Your task to perform on an android device: read, delete, or share a saved page in the chrome app Image 0: 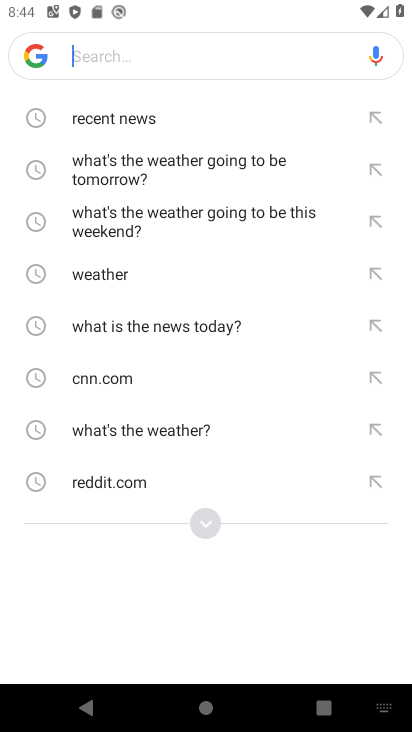
Step 0: press home button
Your task to perform on an android device: read, delete, or share a saved page in the chrome app Image 1: 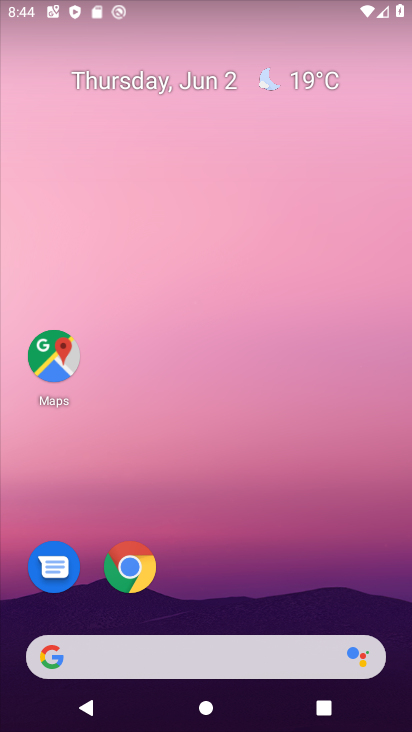
Step 1: click (187, 568)
Your task to perform on an android device: read, delete, or share a saved page in the chrome app Image 2: 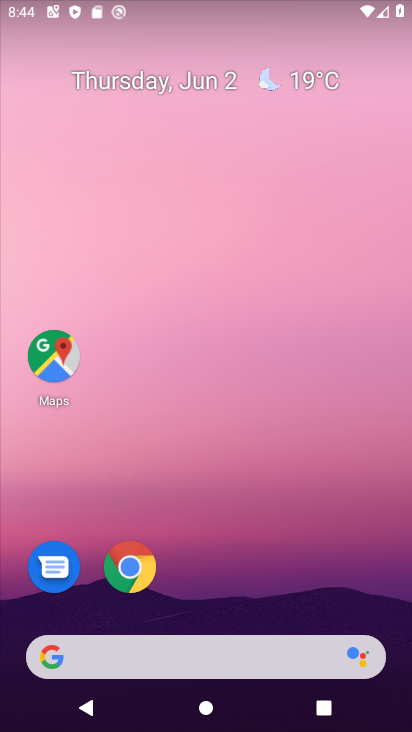
Step 2: click (124, 570)
Your task to perform on an android device: read, delete, or share a saved page in the chrome app Image 3: 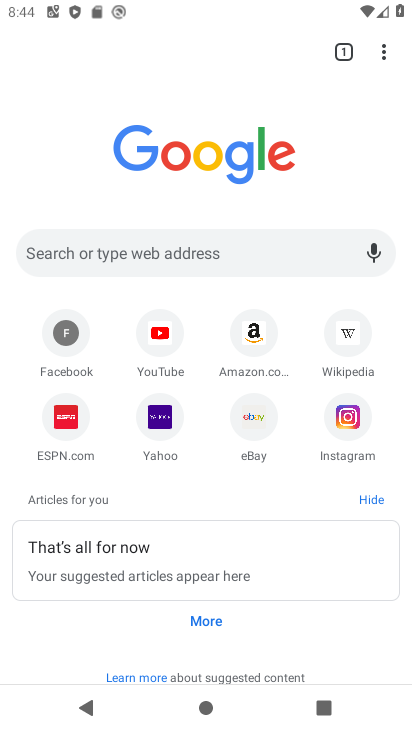
Step 3: click (392, 48)
Your task to perform on an android device: read, delete, or share a saved page in the chrome app Image 4: 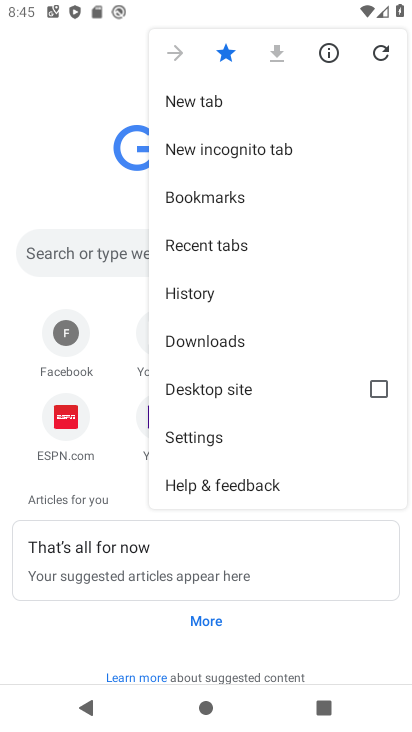
Step 4: click (216, 348)
Your task to perform on an android device: read, delete, or share a saved page in the chrome app Image 5: 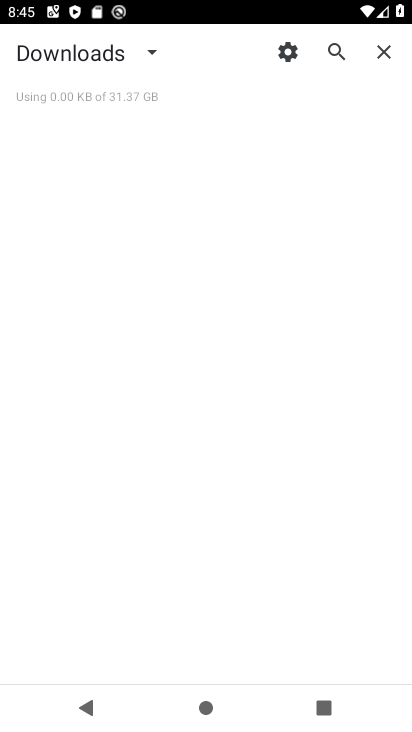
Step 5: task complete